Your task to perform on an android device: Go to Amazon Image 0: 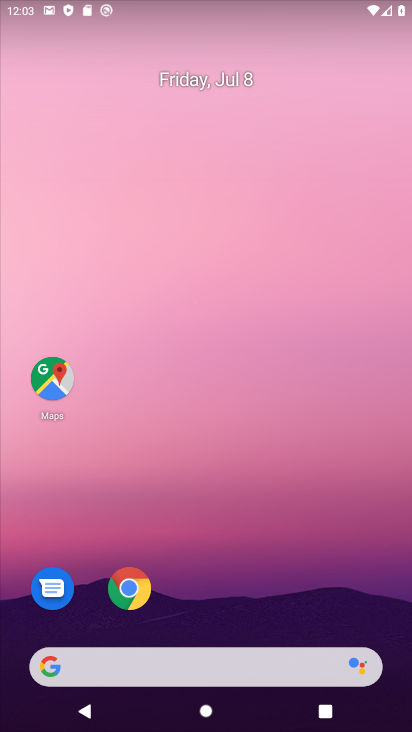
Step 0: click (87, 663)
Your task to perform on an android device: Go to Amazon Image 1: 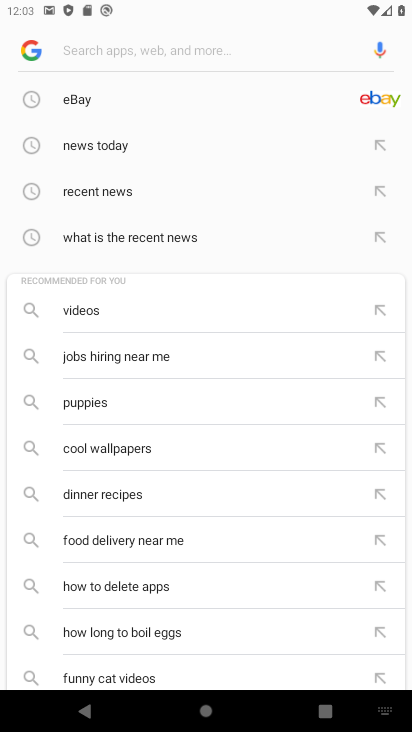
Step 1: type "Amazon"
Your task to perform on an android device: Go to Amazon Image 2: 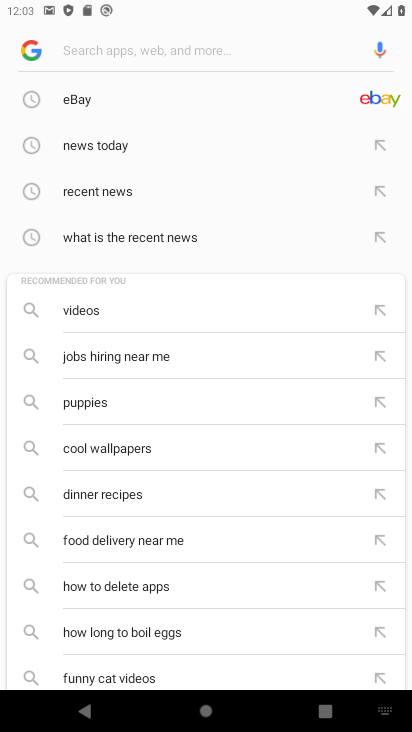
Step 2: click (115, 42)
Your task to perform on an android device: Go to Amazon Image 3: 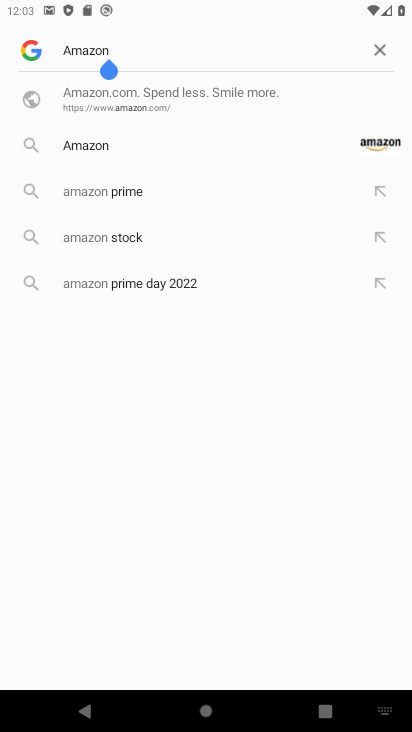
Step 3: click (91, 139)
Your task to perform on an android device: Go to Amazon Image 4: 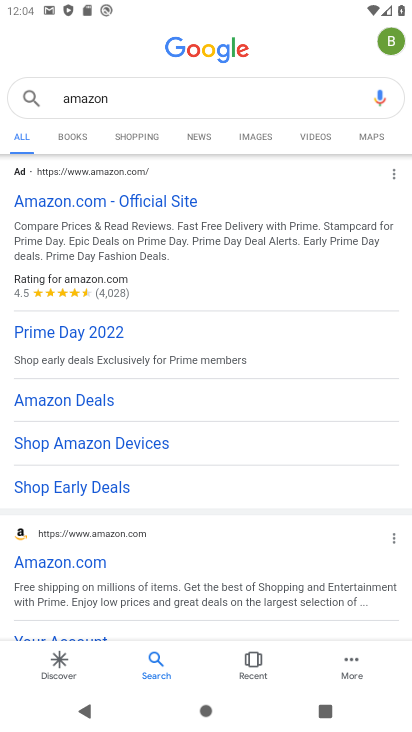
Step 4: click (65, 560)
Your task to perform on an android device: Go to Amazon Image 5: 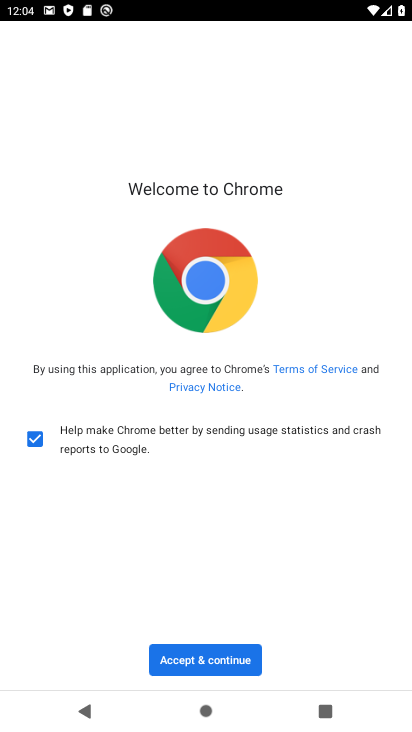
Step 5: click (213, 657)
Your task to perform on an android device: Go to Amazon Image 6: 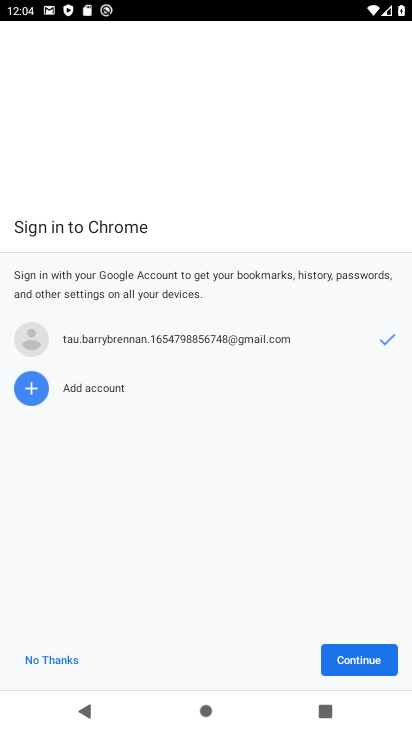
Step 6: click (371, 659)
Your task to perform on an android device: Go to Amazon Image 7: 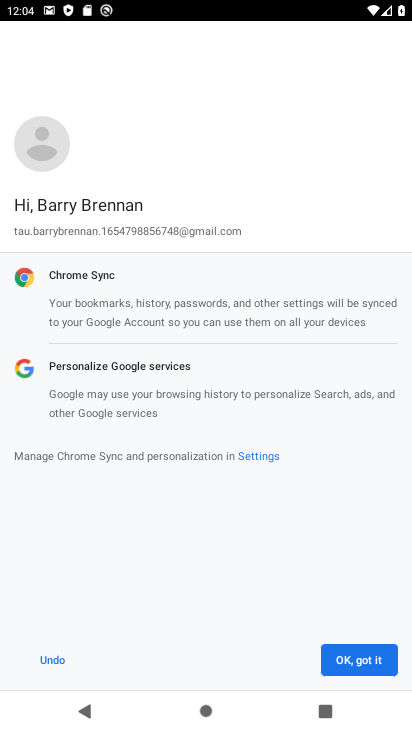
Step 7: click (371, 659)
Your task to perform on an android device: Go to Amazon Image 8: 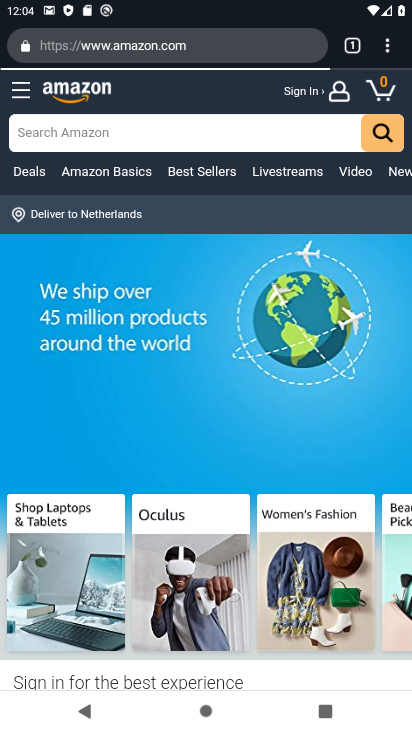
Step 8: task complete